Your task to perform on an android device: Open calendar and show me the fourth week of next month Image 0: 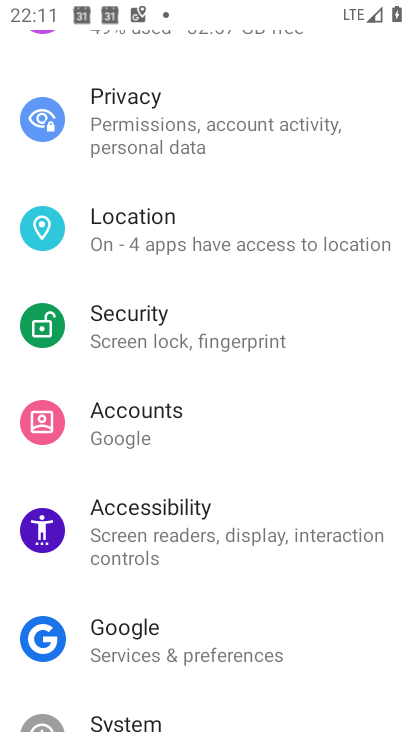
Step 0: press home button
Your task to perform on an android device: Open calendar and show me the fourth week of next month Image 1: 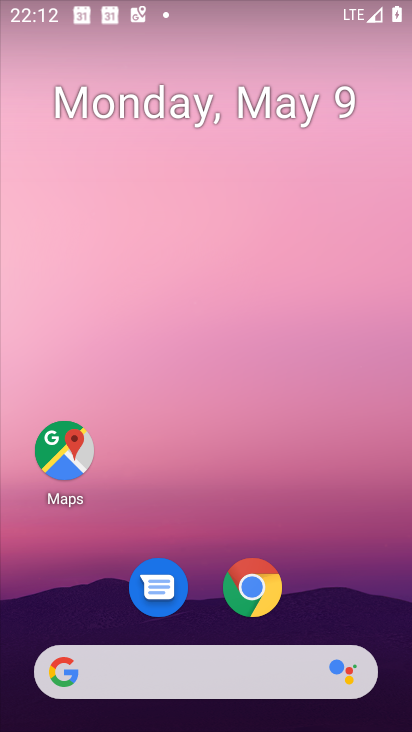
Step 1: click (191, 142)
Your task to perform on an android device: Open calendar and show me the fourth week of next month Image 2: 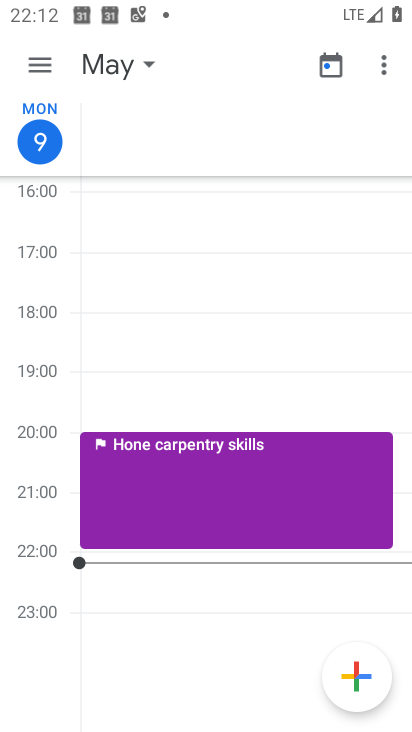
Step 2: click (133, 72)
Your task to perform on an android device: Open calendar and show me the fourth week of next month Image 3: 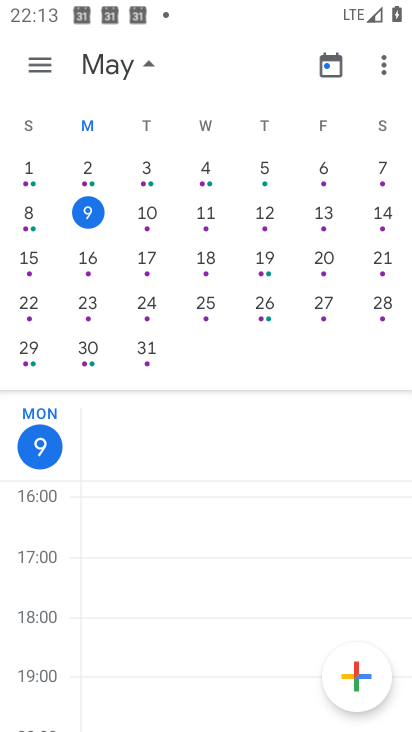
Step 3: drag from (382, 359) to (57, 321)
Your task to perform on an android device: Open calendar and show me the fourth week of next month Image 4: 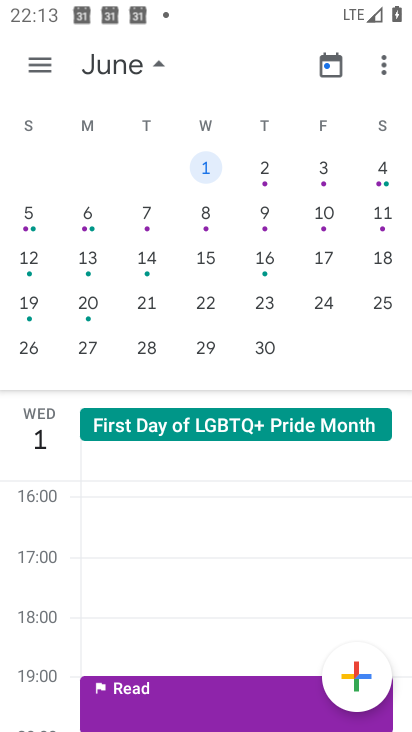
Step 4: click (262, 312)
Your task to perform on an android device: Open calendar and show me the fourth week of next month Image 5: 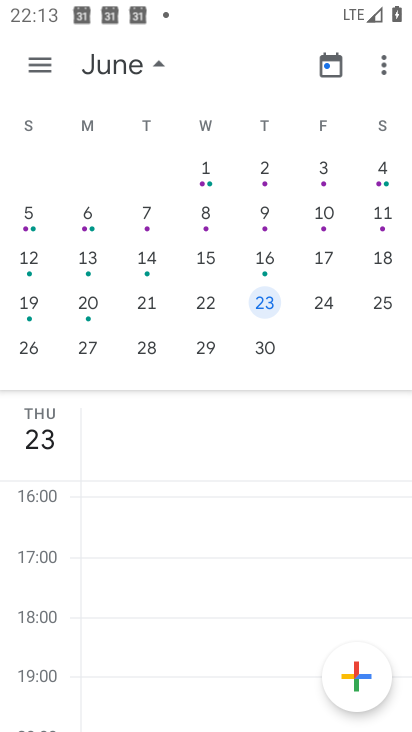
Step 5: task complete